Your task to perform on an android device: check data usage Image 0: 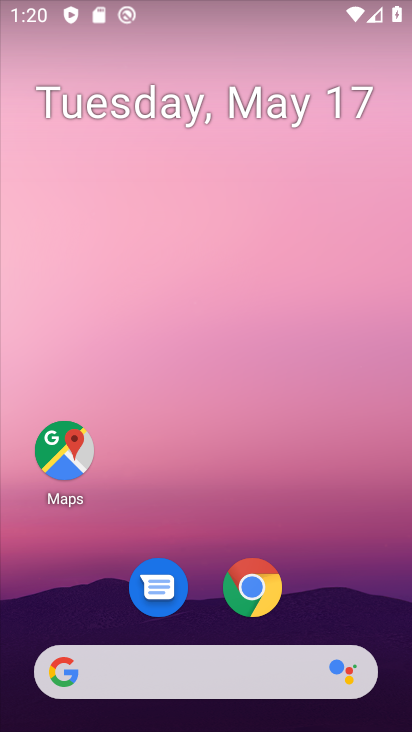
Step 0: drag from (346, 554) to (367, 162)
Your task to perform on an android device: check data usage Image 1: 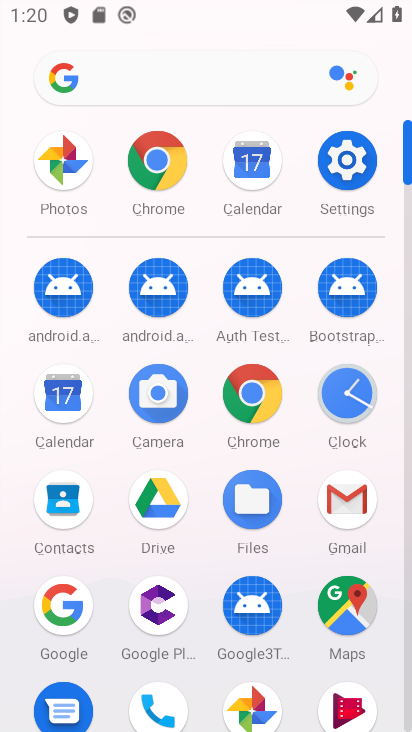
Step 1: click (337, 162)
Your task to perform on an android device: check data usage Image 2: 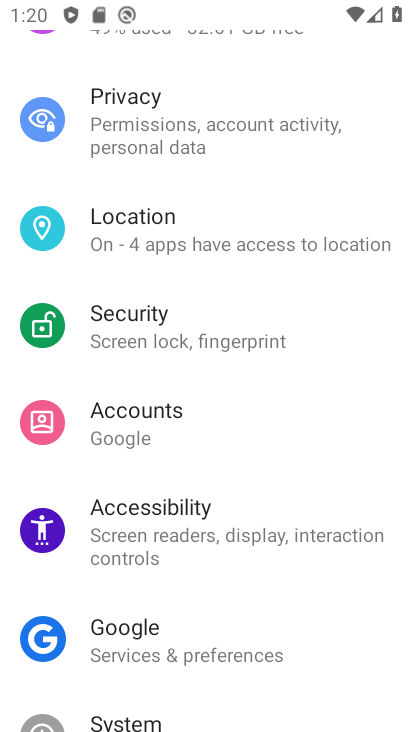
Step 2: drag from (300, 147) to (326, 605)
Your task to perform on an android device: check data usage Image 3: 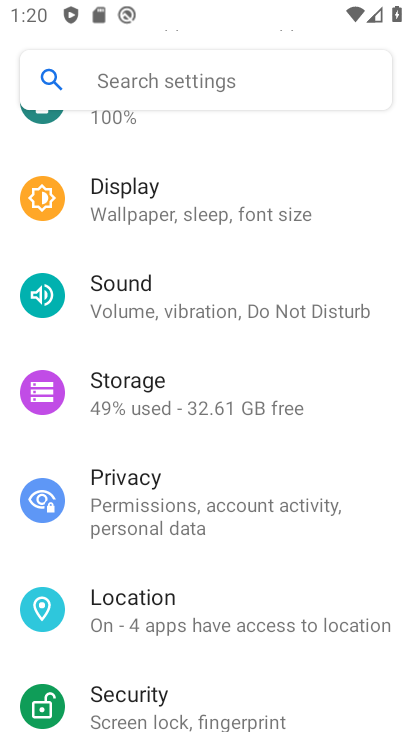
Step 3: drag from (267, 222) to (301, 650)
Your task to perform on an android device: check data usage Image 4: 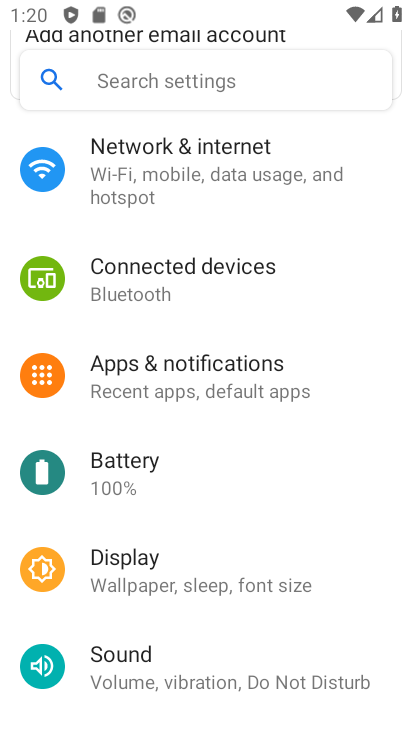
Step 4: click (230, 187)
Your task to perform on an android device: check data usage Image 5: 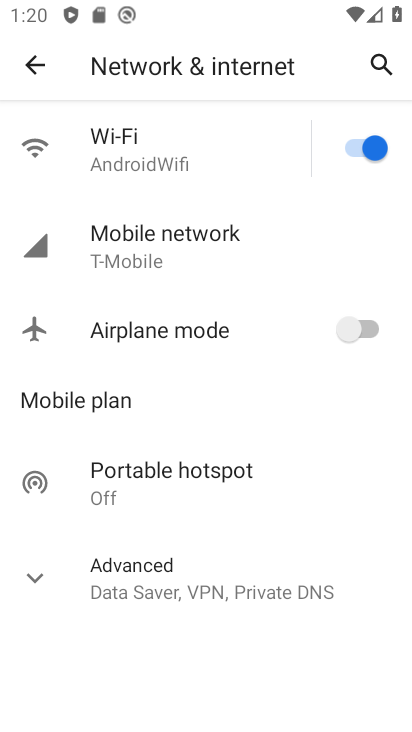
Step 5: click (200, 235)
Your task to perform on an android device: check data usage Image 6: 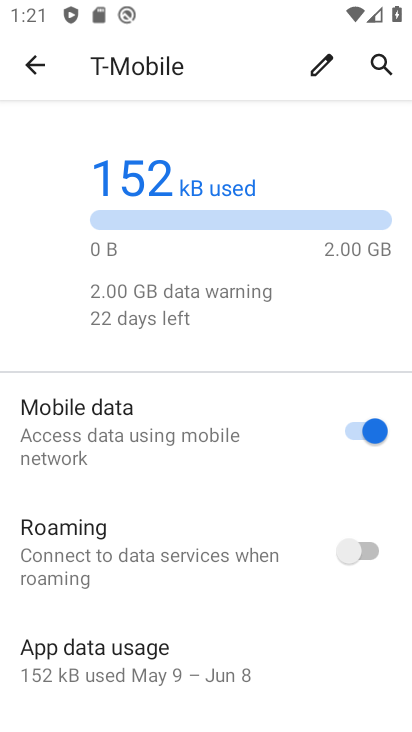
Step 6: task complete